Your task to perform on an android device: clear all cookies in the chrome app Image 0: 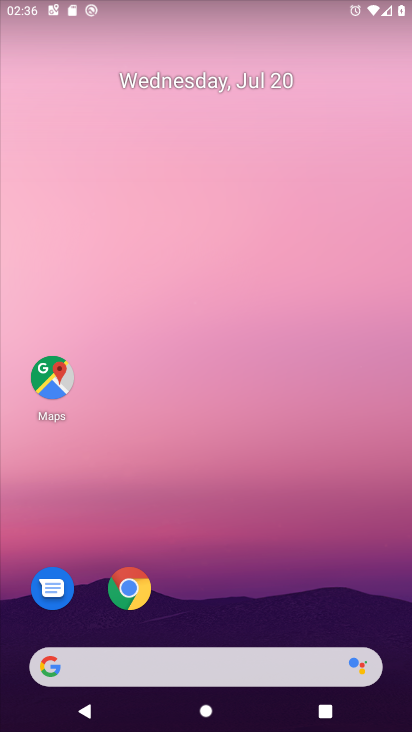
Step 0: drag from (228, 617) to (241, 180)
Your task to perform on an android device: clear all cookies in the chrome app Image 1: 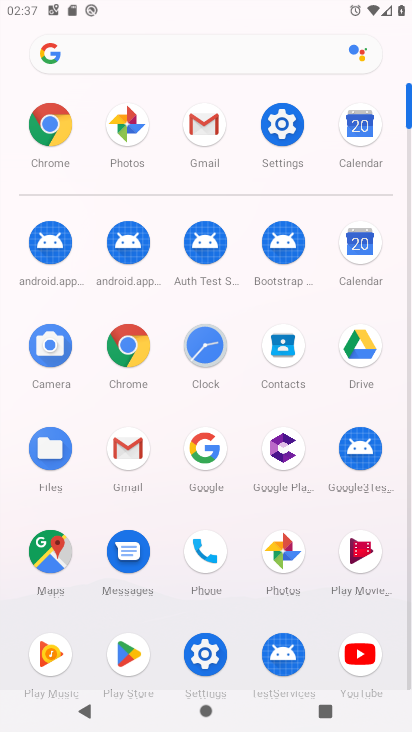
Step 1: click (51, 105)
Your task to perform on an android device: clear all cookies in the chrome app Image 2: 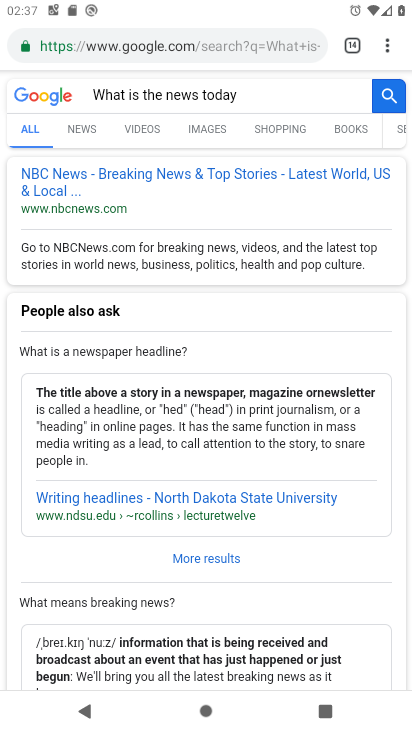
Step 2: click (395, 36)
Your task to perform on an android device: clear all cookies in the chrome app Image 3: 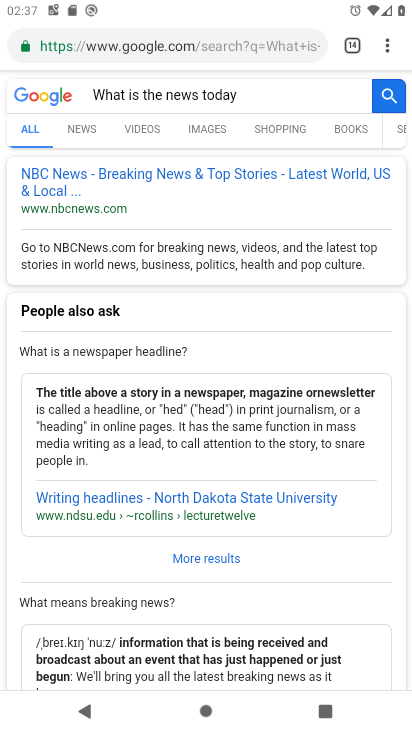
Step 3: click (392, 42)
Your task to perform on an android device: clear all cookies in the chrome app Image 4: 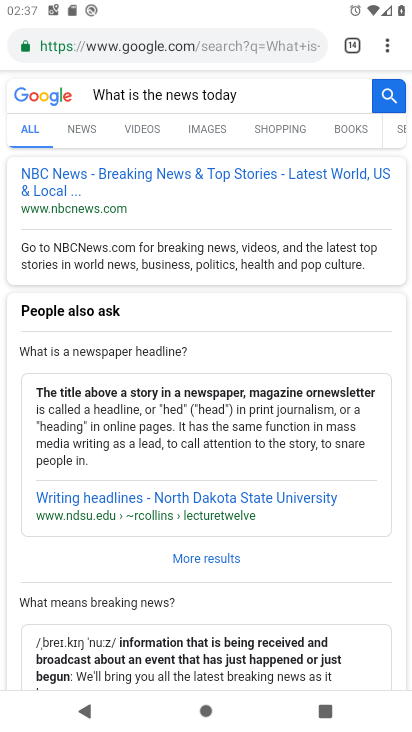
Step 4: click (379, 47)
Your task to perform on an android device: clear all cookies in the chrome app Image 5: 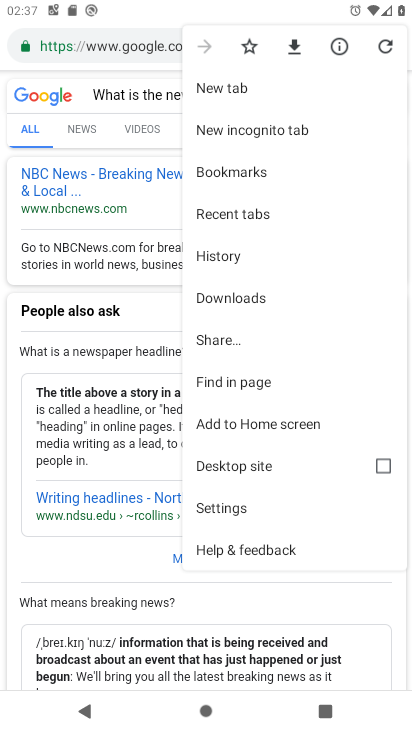
Step 5: click (242, 512)
Your task to perform on an android device: clear all cookies in the chrome app Image 6: 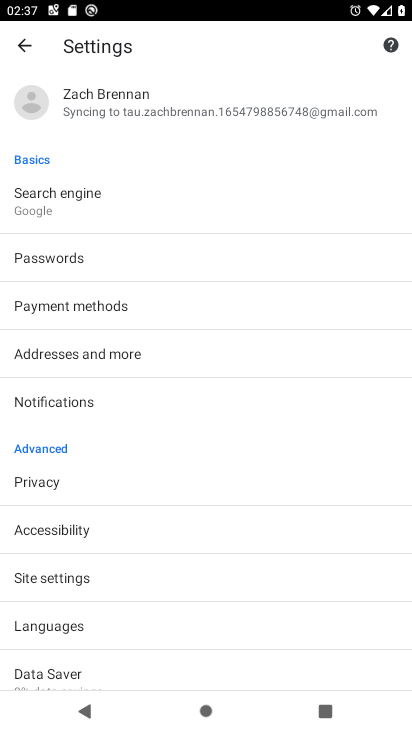
Step 6: click (83, 479)
Your task to perform on an android device: clear all cookies in the chrome app Image 7: 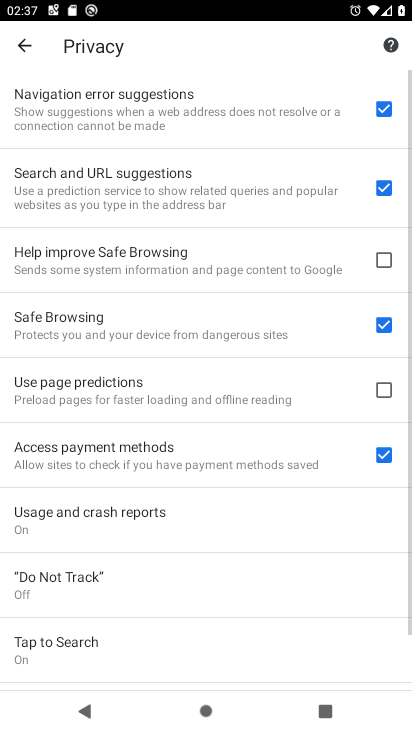
Step 7: drag from (273, 633) to (261, 196)
Your task to perform on an android device: clear all cookies in the chrome app Image 8: 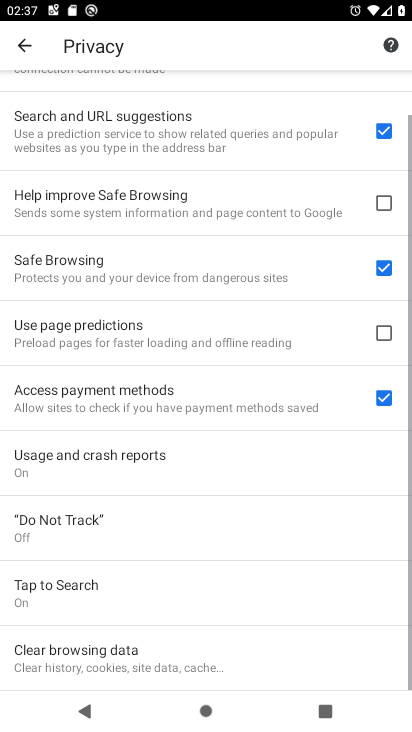
Step 8: drag from (302, 654) to (249, 260)
Your task to perform on an android device: clear all cookies in the chrome app Image 9: 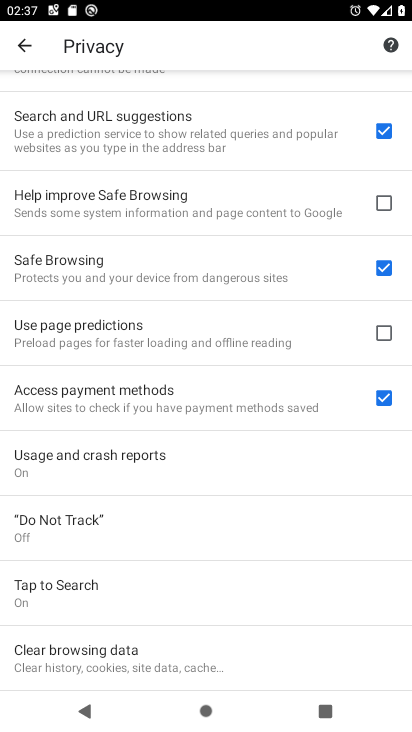
Step 9: click (203, 649)
Your task to perform on an android device: clear all cookies in the chrome app Image 10: 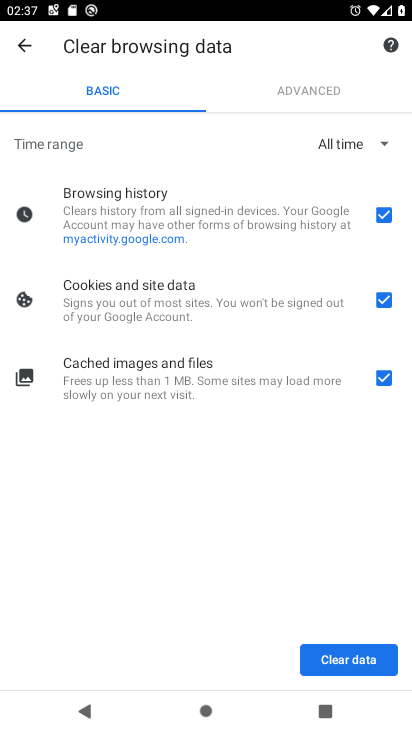
Step 10: click (352, 647)
Your task to perform on an android device: clear all cookies in the chrome app Image 11: 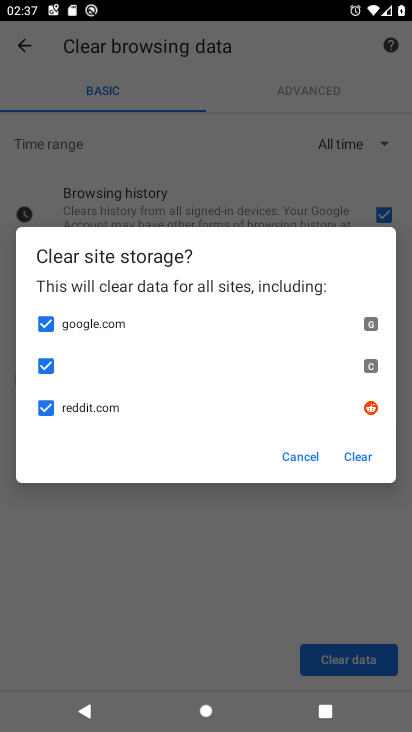
Step 11: click (357, 465)
Your task to perform on an android device: clear all cookies in the chrome app Image 12: 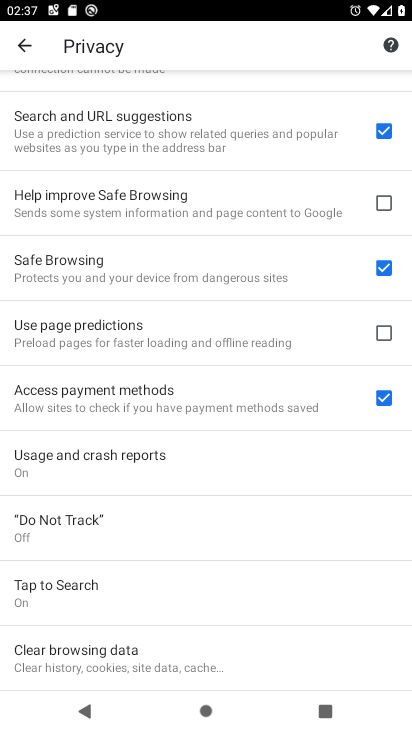
Step 12: task complete